Your task to perform on an android device: When is my next appointment? Image 0: 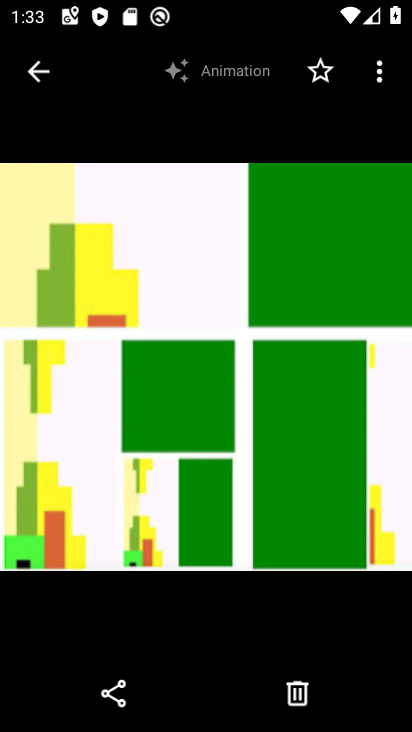
Step 0: press home button
Your task to perform on an android device: When is my next appointment? Image 1: 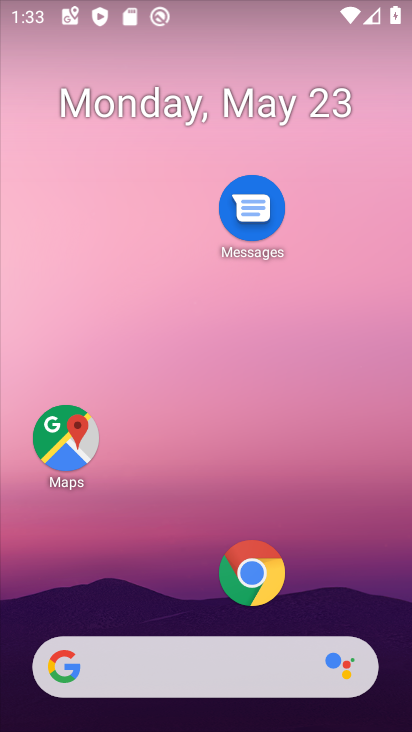
Step 1: drag from (155, 554) to (214, 110)
Your task to perform on an android device: When is my next appointment? Image 2: 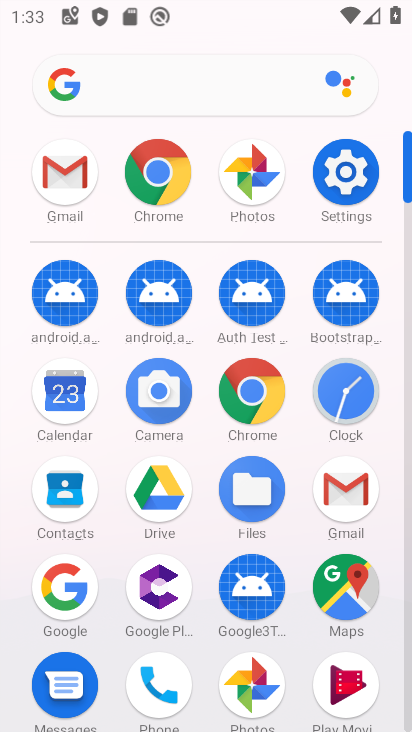
Step 2: click (58, 392)
Your task to perform on an android device: When is my next appointment? Image 3: 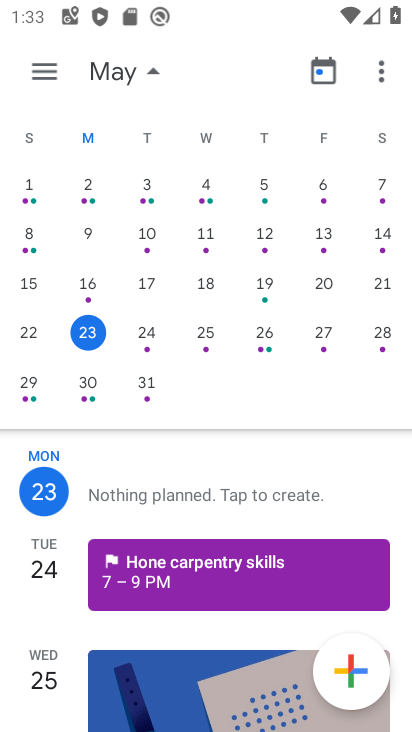
Step 3: task complete